Your task to perform on an android device: toggle notification dots Image 0: 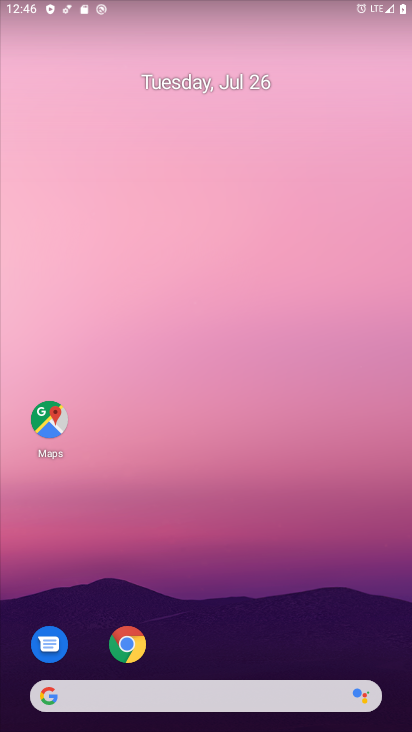
Step 0: drag from (217, 634) to (251, 64)
Your task to perform on an android device: toggle notification dots Image 1: 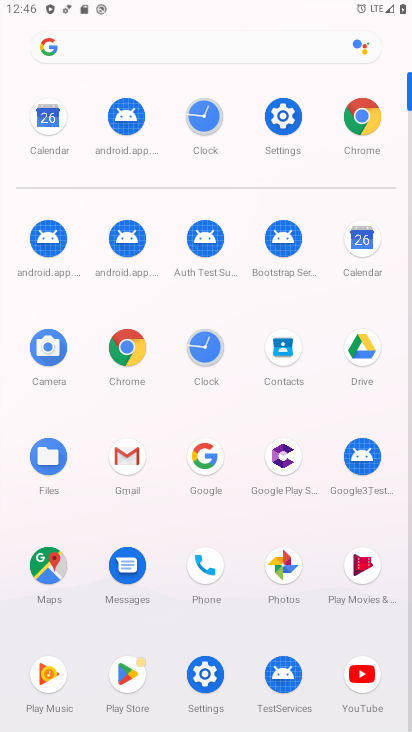
Step 1: click (280, 102)
Your task to perform on an android device: toggle notification dots Image 2: 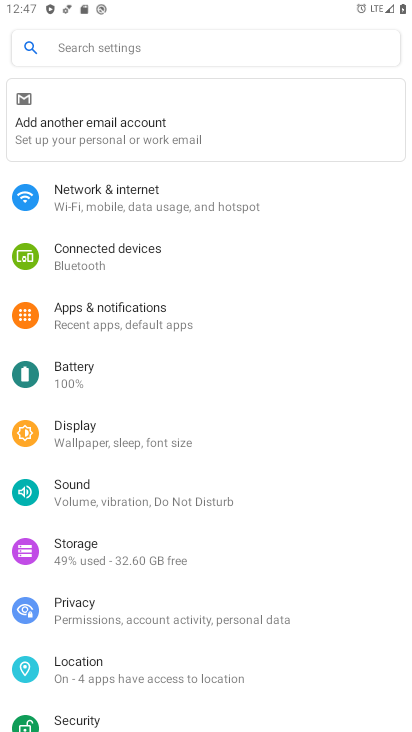
Step 2: click (186, 315)
Your task to perform on an android device: toggle notification dots Image 3: 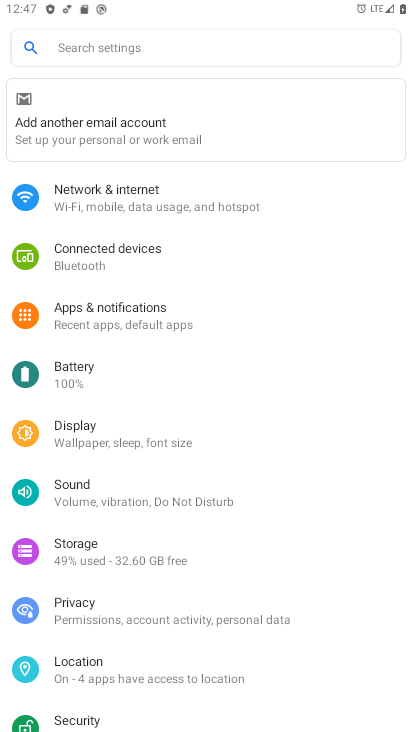
Step 3: click (186, 315)
Your task to perform on an android device: toggle notification dots Image 4: 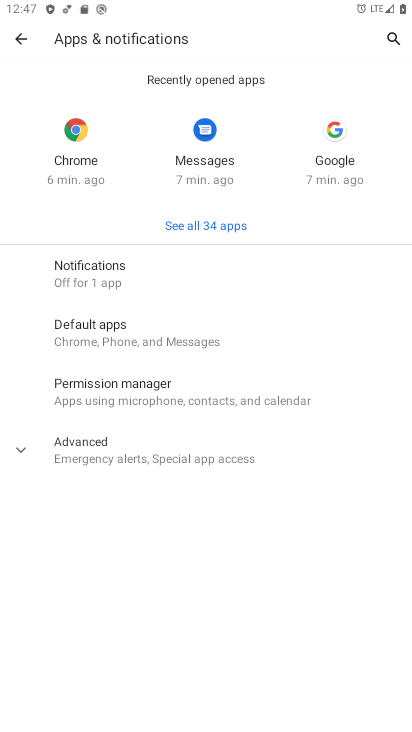
Step 4: click (165, 284)
Your task to perform on an android device: toggle notification dots Image 5: 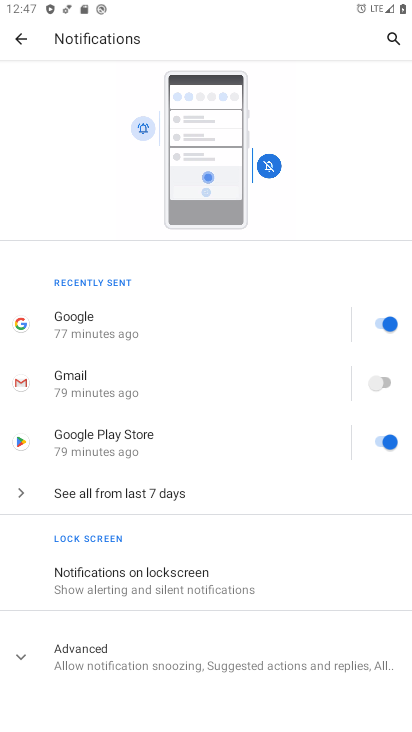
Step 5: click (216, 647)
Your task to perform on an android device: toggle notification dots Image 6: 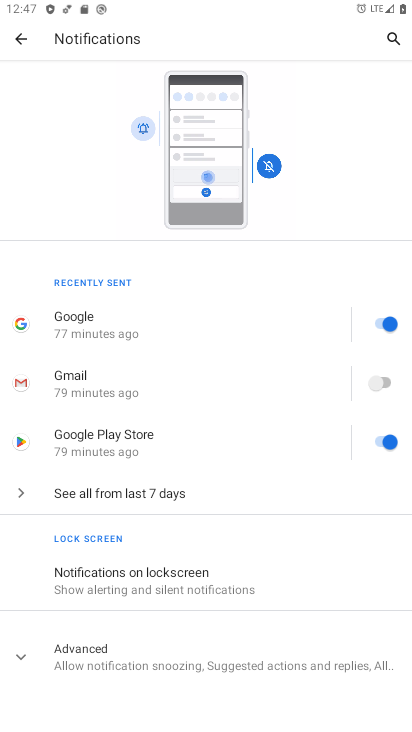
Step 6: click (216, 647)
Your task to perform on an android device: toggle notification dots Image 7: 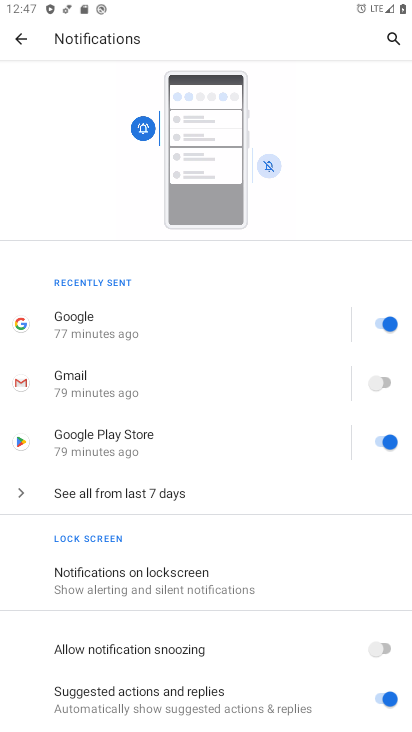
Step 7: drag from (371, 593) to (309, 0)
Your task to perform on an android device: toggle notification dots Image 8: 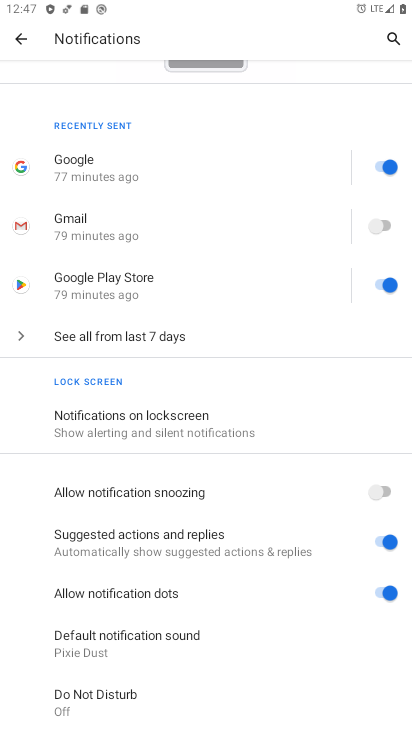
Step 8: click (386, 597)
Your task to perform on an android device: toggle notification dots Image 9: 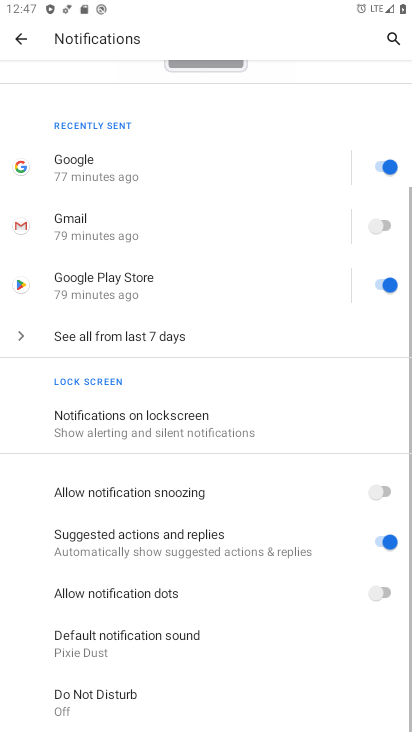
Step 9: task complete